Your task to perform on an android device: Open the calendar app, open the side menu, and click the "Day" option Image 0: 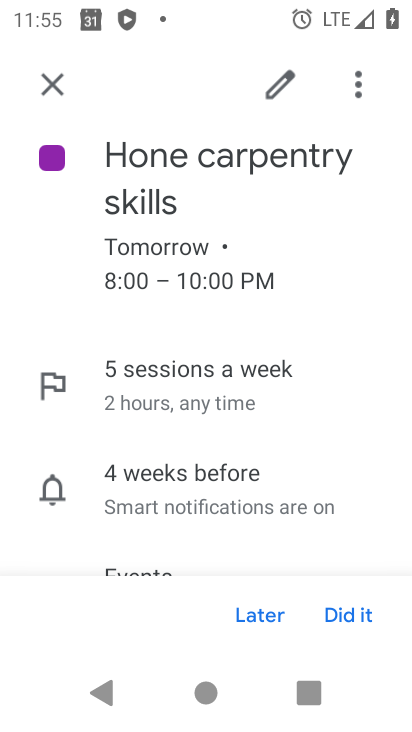
Step 0: press back button
Your task to perform on an android device: Open the calendar app, open the side menu, and click the "Day" option Image 1: 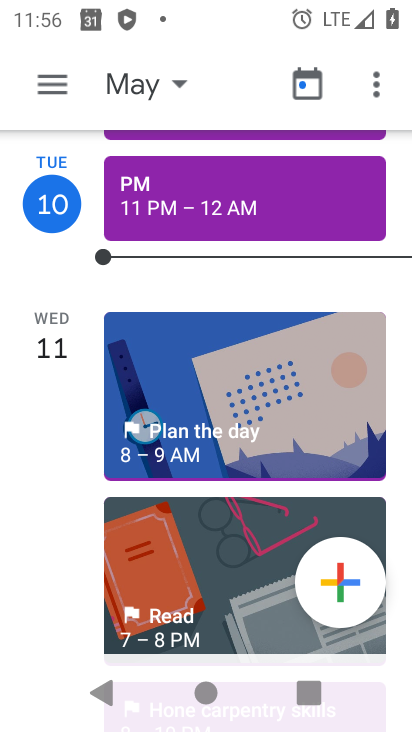
Step 1: click (43, 71)
Your task to perform on an android device: Open the calendar app, open the side menu, and click the "Day" option Image 2: 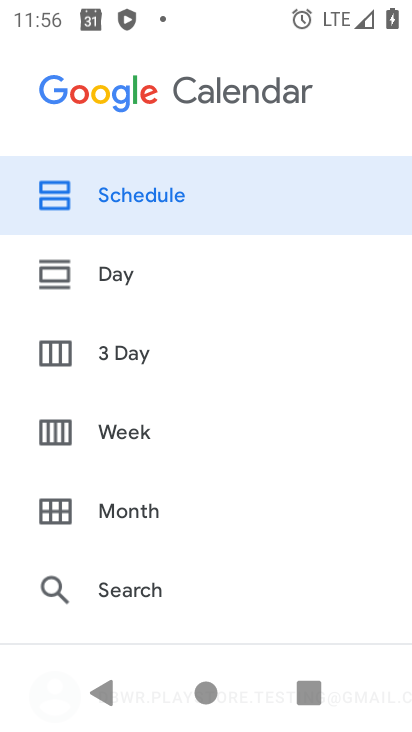
Step 2: click (158, 265)
Your task to perform on an android device: Open the calendar app, open the side menu, and click the "Day" option Image 3: 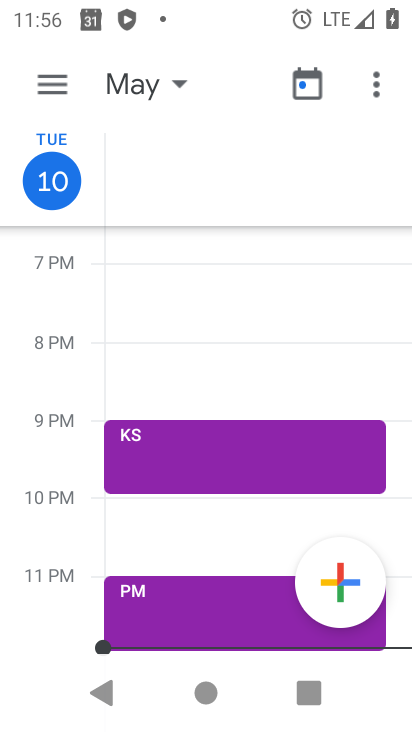
Step 3: click (54, 81)
Your task to perform on an android device: Open the calendar app, open the side menu, and click the "Day" option Image 4: 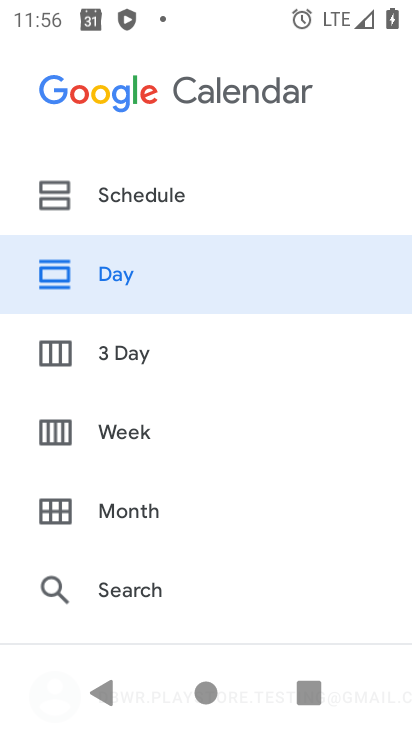
Step 4: click (100, 295)
Your task to perform on an android device: Open the calendar app, open the side menu, and click the "Day" option Image 5: 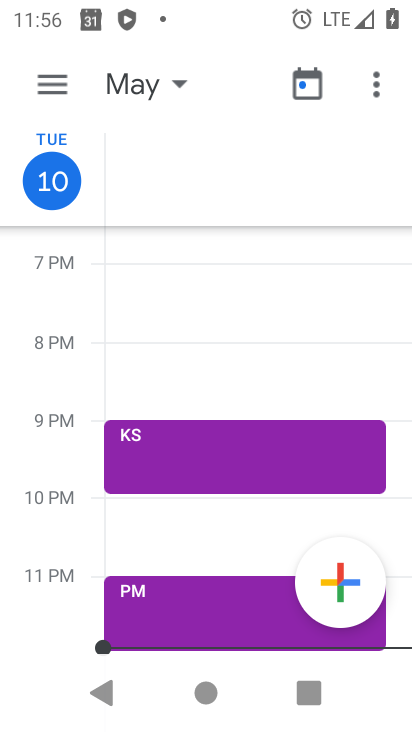
Step 5: task complete